Your task to perform on an android device: move a message to another label in the gmail app Image 0: 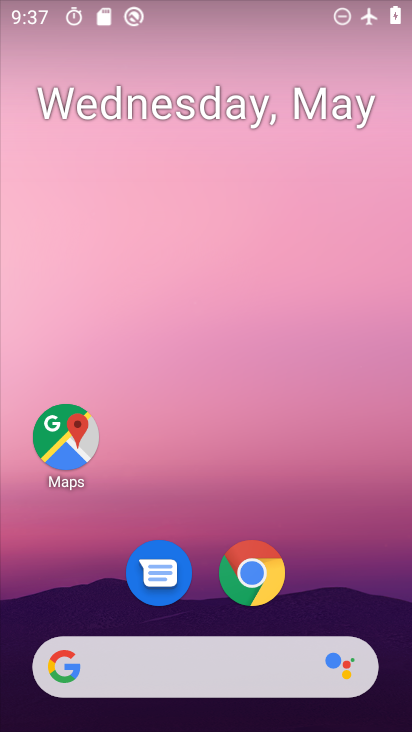
Step 0: drag from (385, 630) to (353, 248)
Your task to perform on an android device: move a message to another label in the gmail app Image 1: 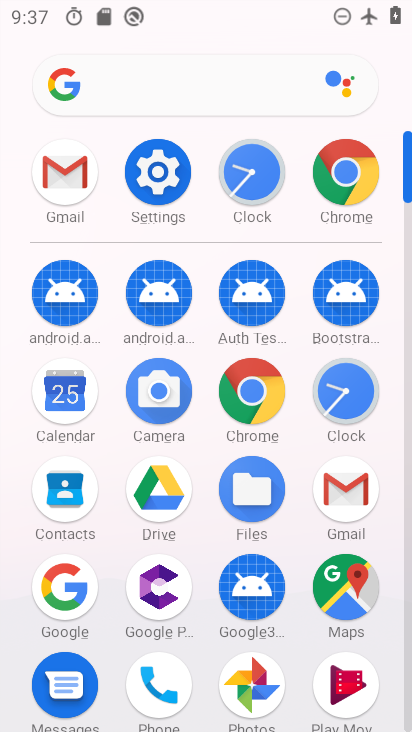
Step 1: click (343, 514)
Your task to perform on an android device: move a message to another label in the gmail app Image 2: 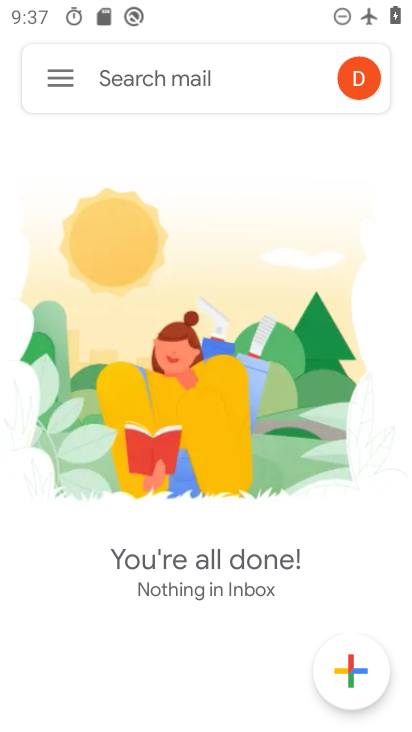
Step 2: click (63, 67)
Your task to perform on an android device: move a message to another label in the gmail app Image 3: 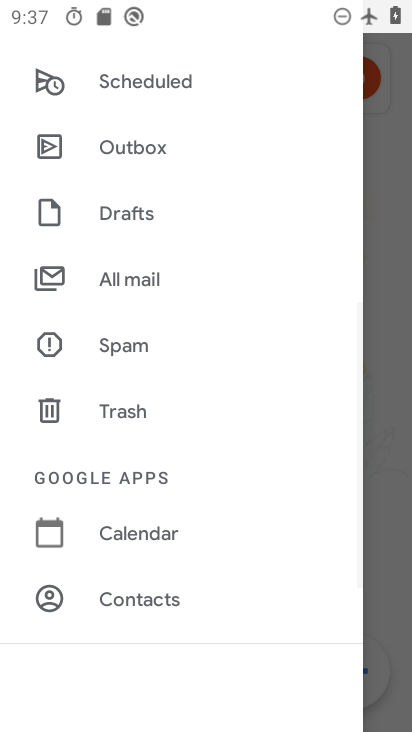
Step 3: drag from (301, 113) to (277, 539)
Your task to perform on an android device: move a message to another label in the gmail app Image 4: 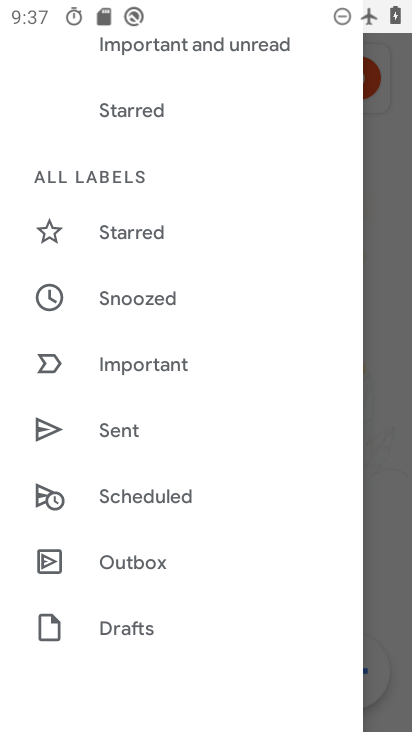
Step 4: drag from (283, 106) to (292, 547)
Your task to perform on an android device: move a message to another label in the gmail app Image 5: 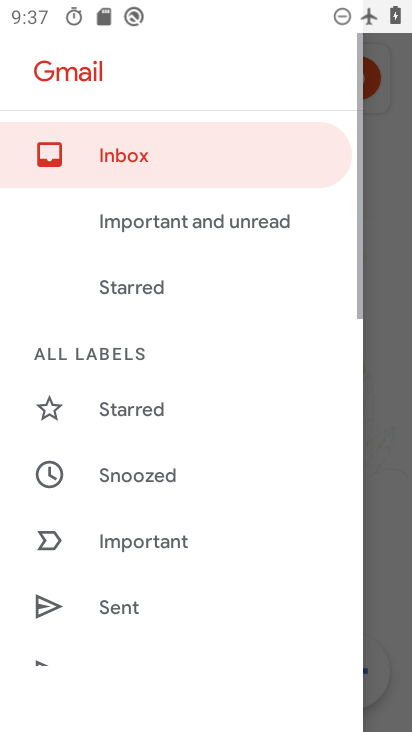
Step 5: click (139, 158)
Your task to perform on an android device: move a message to another label in the gmail app Image 6: 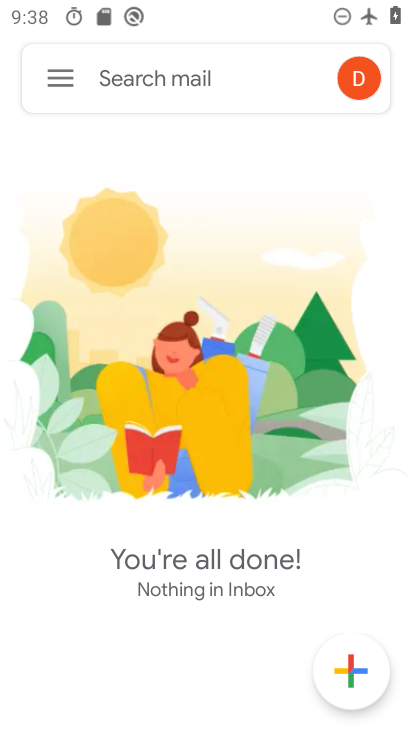
Step 6: task complete